Your task to perform on an android device: Open privacy settings Image 0: 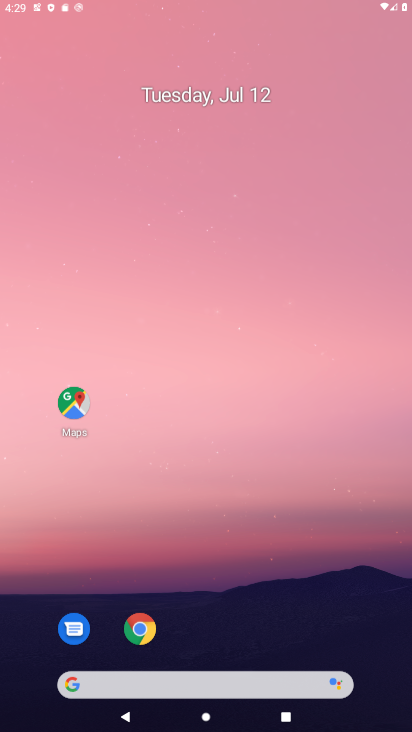
Step 0: press home button
Your task to perform on an android device: Open privacy settings Image 1: 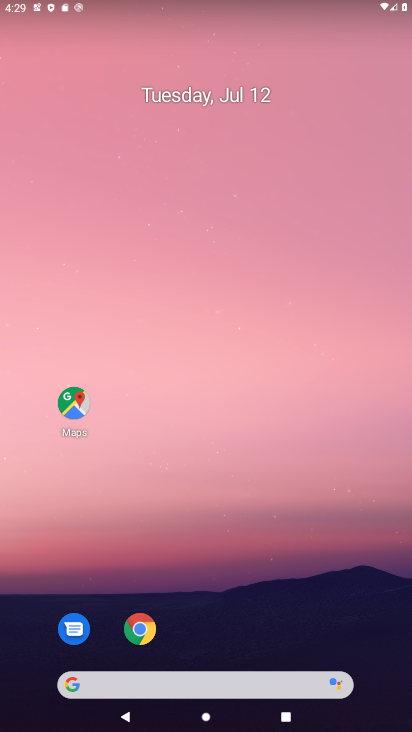
Step 1: drag from (267, 623) to (284, 54)
Your task to perform on an android device: Open privacy settings Image 2: 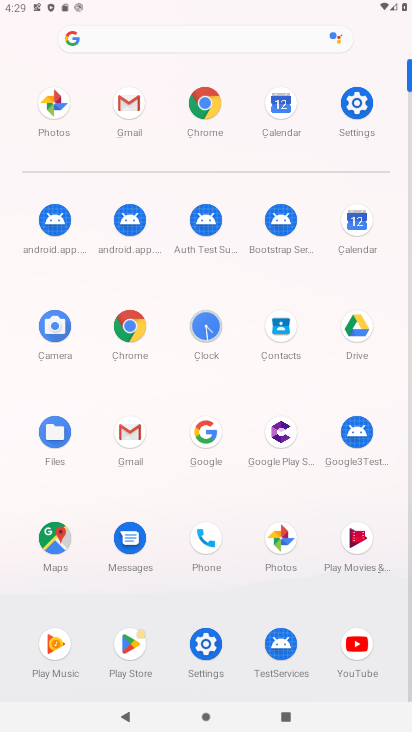
Step 2: click (355, 96)
Your task to perform on an android device: Open privacy settings Image 3: 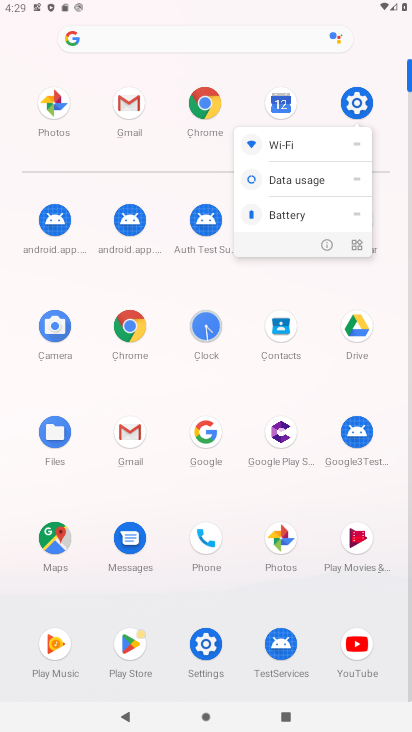
Step 3: click (355, 96)
Your task to perform on an android device: Open privacy settings Image 4: 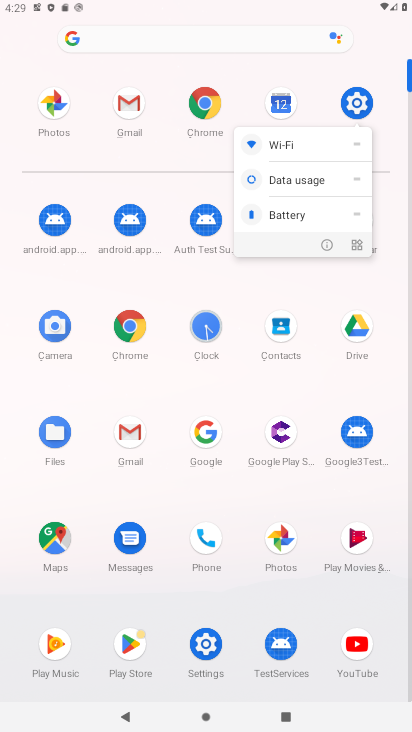
Step 4: click (356, 113)
Your task to perform on an android device: Open privacy settings Image 5: 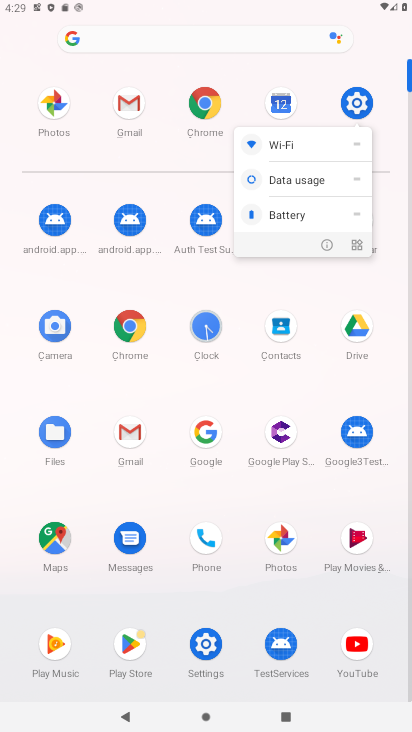
Step 5: click (355, 101)
Your task to perform on an android device: Open privacy settings Image 6: 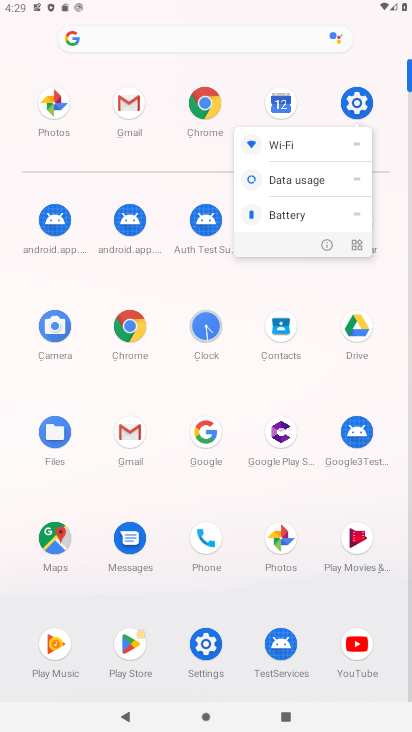
Step 6: click (355, 99)
Your task to perform on an android device: Open privacy settings Image 7: 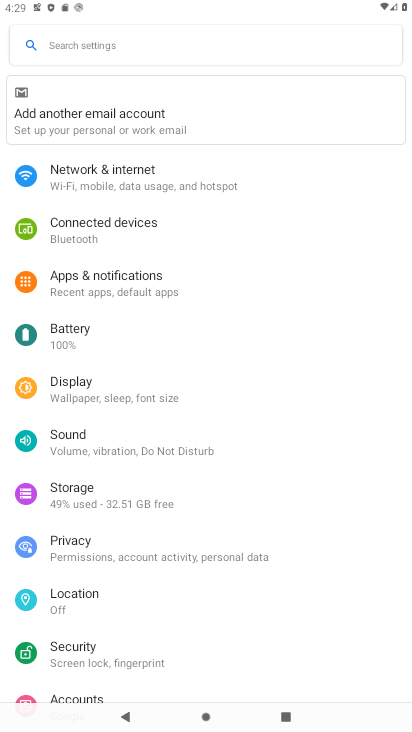
Step 7: click (58, 546)
Your task to perform on an android device: Open privacy settings Image 8: 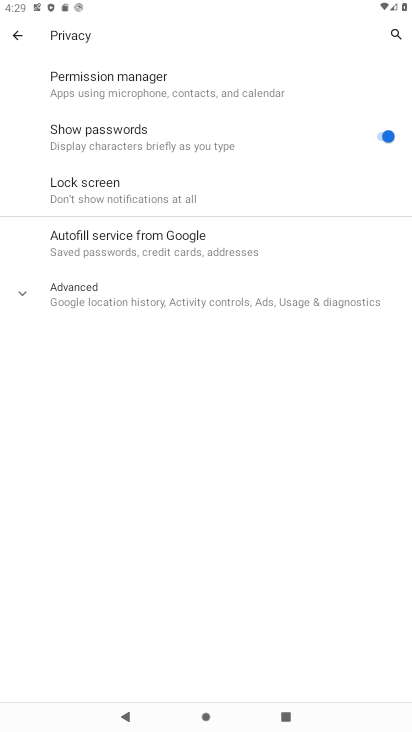
Step 8: task complete